Your task to perform on an android device: turn on wifi Image 0: 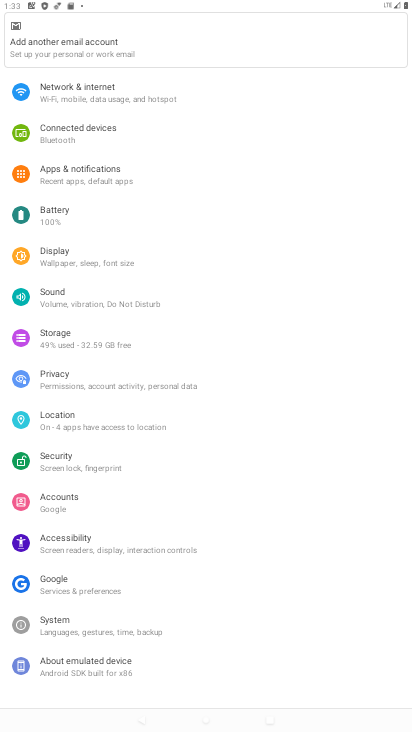
Step 0: click (94, 91)
Your task to perform on an android device: turn on wifi Image 1: 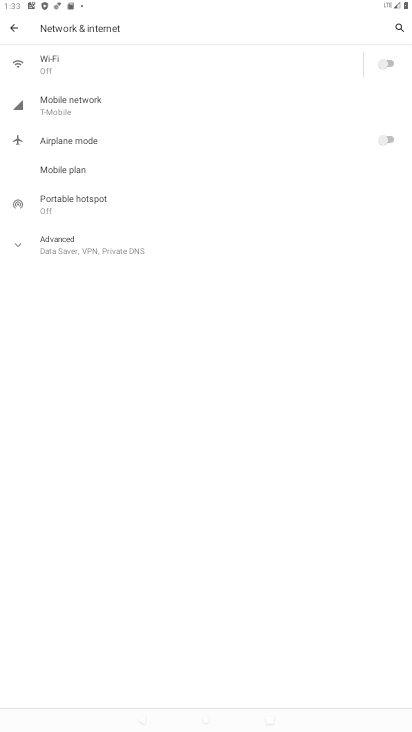
Step 1: click (390, 63)
Your task to perform on an android device: turn on wifi Image 2: 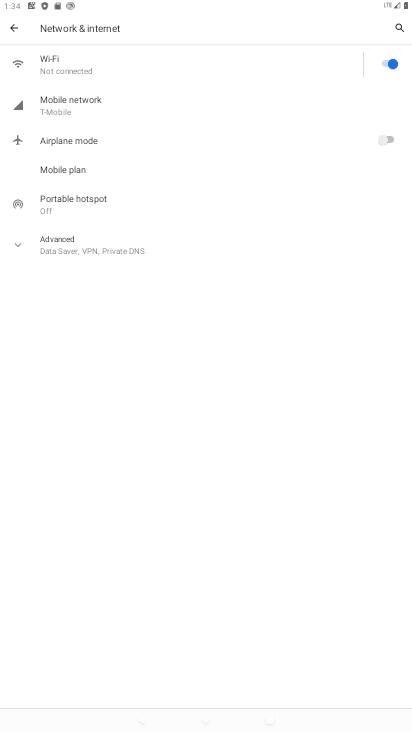
Step 2: task complete